Your task to perform on an android device: toggle priority inbox in the gmail app Image 0: 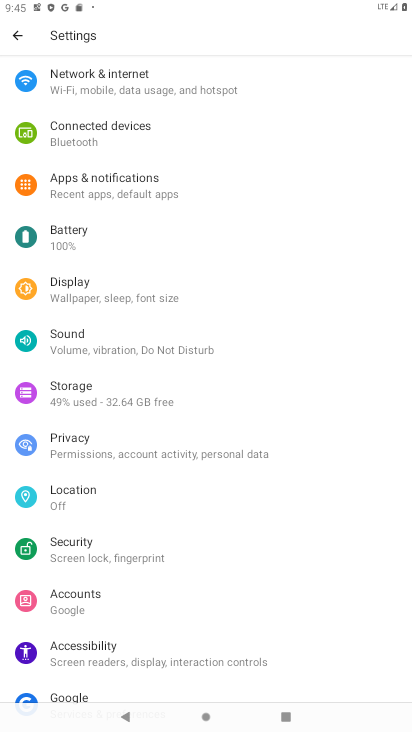
Step 0: press home button
Your task to perform on an android device: toggle priority inbox in the gmail app Image 1: 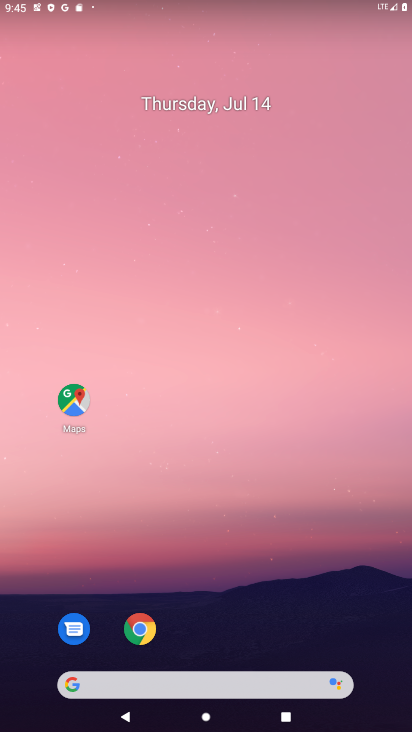
Step 1: drag from (27, 587) to (283, 110)
Your task to perform on an android device: toggle priority inbox in the gmail app Image 2: 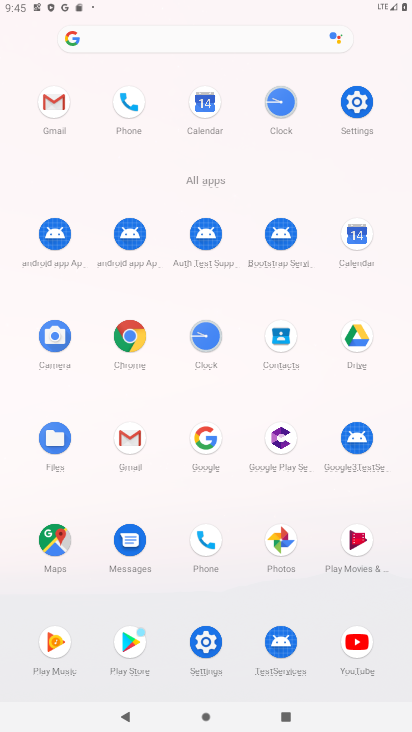
Step 2: click (69, 116)
Your task to perform on an android device: toggle priority inbox in the gmail app Image 3: 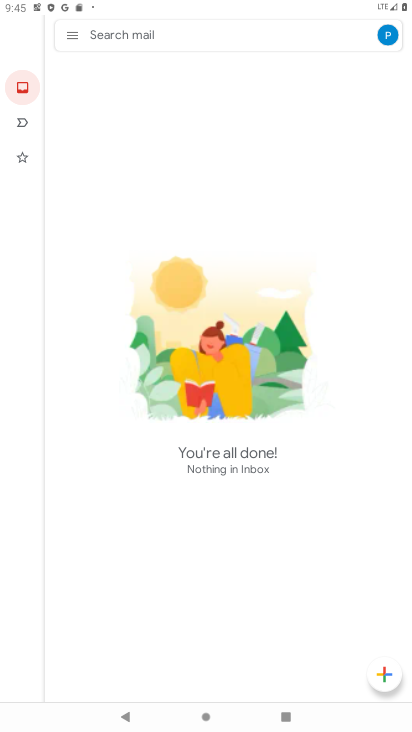
Step 3: click (68, 40)
Your task to perform on an android device: toggle priority inbox in the gmail app Image 4: 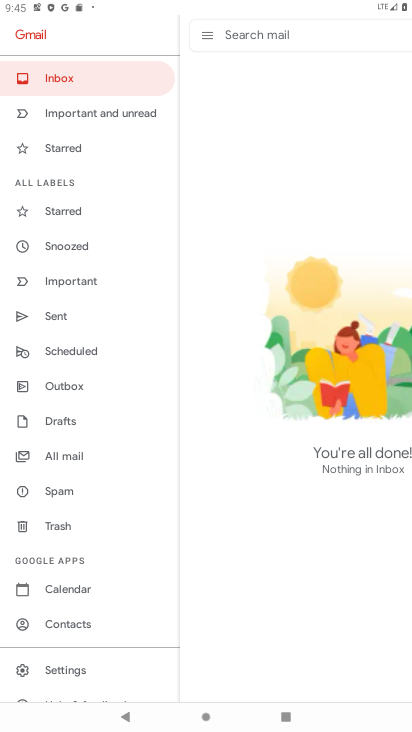
Step 4: click (106, 676)
Your task to perform on an android device: toggle priority inbox in the gmail app Image 5: 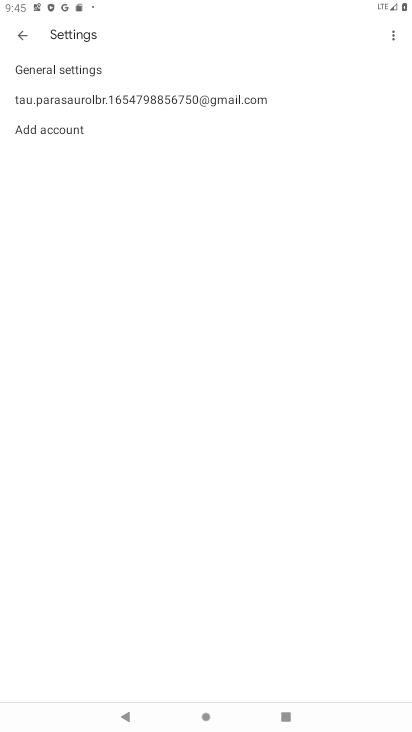
Step 5: click (226, 103)
Your task to perform on an android device: toggle priority inbox in the gmail app Image 6: 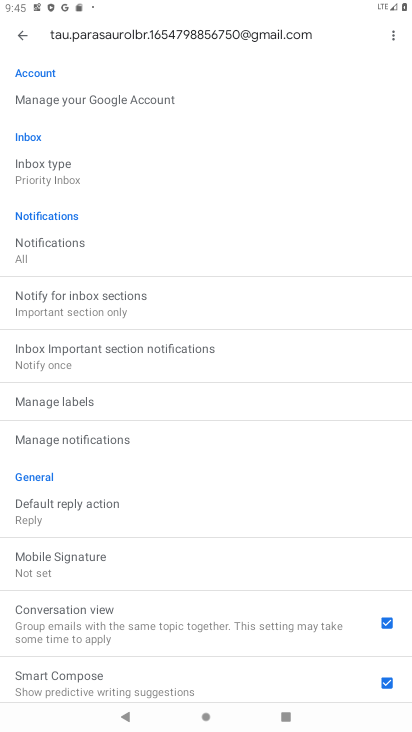
Step 6: click (99, 180)
Your task to perform on an android device: toggle priority inbox in the gmail app Image 7: 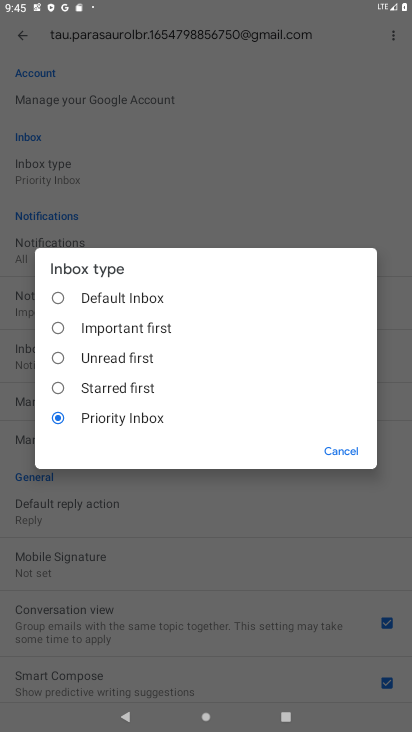
Step 7: click (135, 394)
Your task to perform on an android device: toggle priority inbox in the gmail app Image 8: 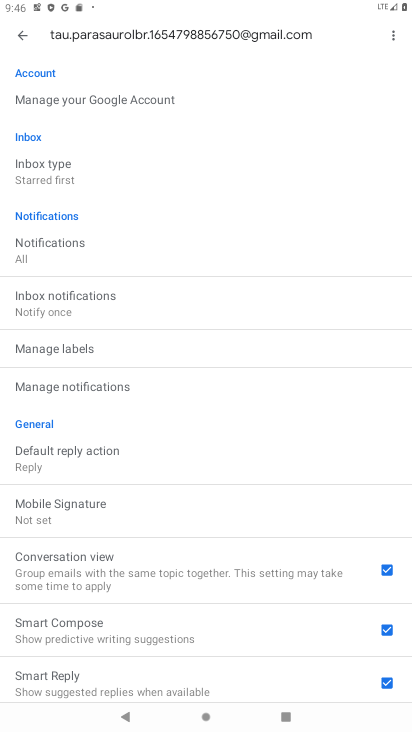
Step 8: task complete